Your task to perform on an android device: Go to Yahoo.com Image 0: 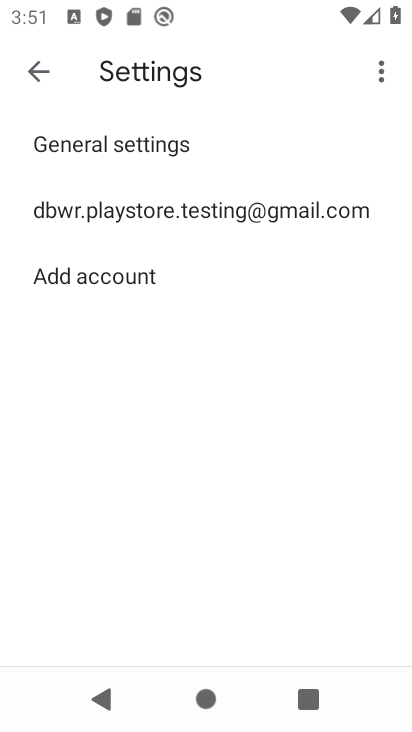
Step 0: press home button
Your task to perform on an android device: Go to Yahoo.com Image 1: 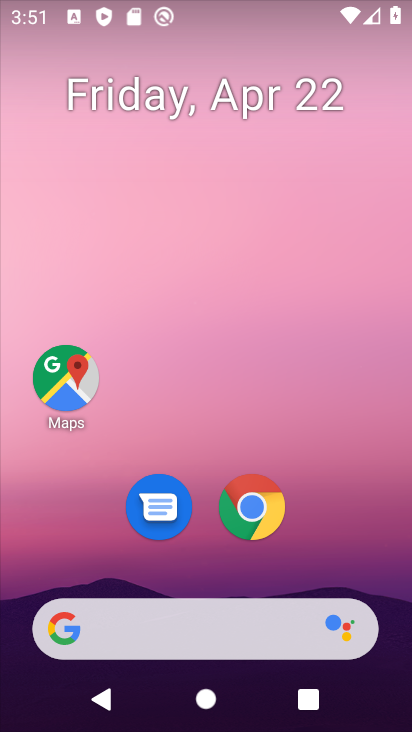
Step 1: drag from (328, 537) to (332, 57)
Your task to perform on an android device: Go to Yahoo.com Image 2: 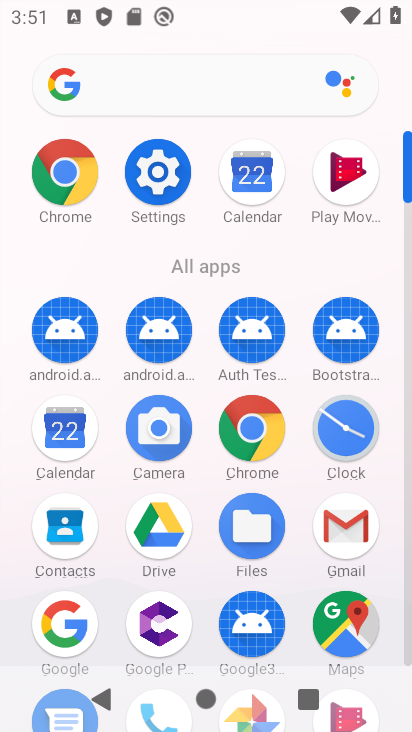
Step 2: click (66, 176)
Your task to perform on an android device: Go to Yahoo.com Image 3: 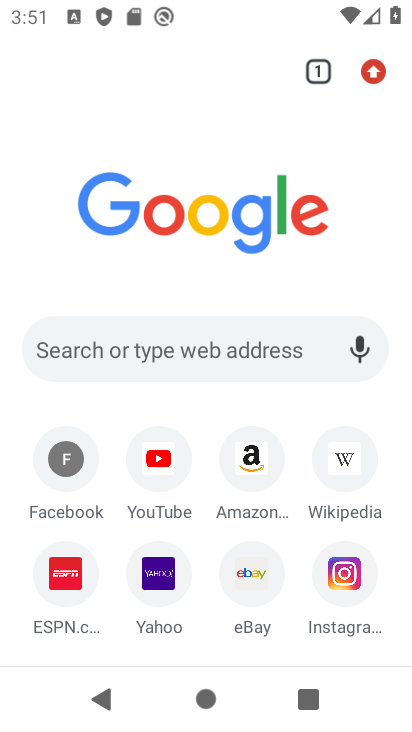
Step 3: click (168, 580)
Your task to perform on an android device: Go to Yahoo.com Image 4: 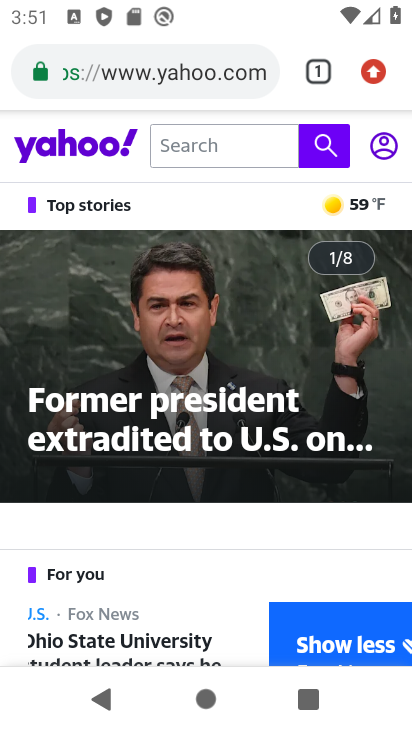
Step 4: task complete